Your task to perform on an android device: What's the weather today? Image 0: 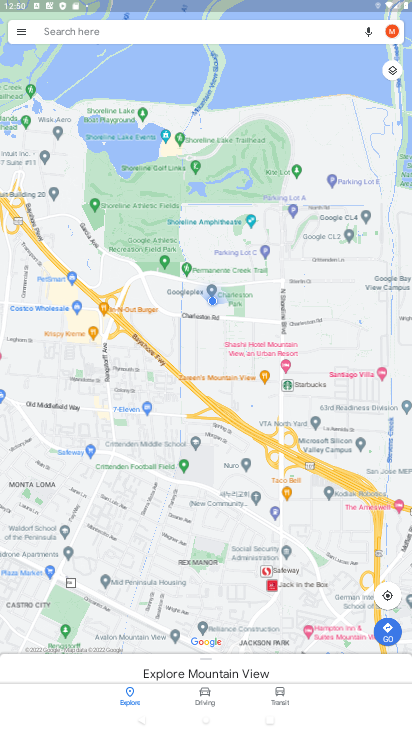
Step 0: press home button
Your task to perform on an android device: What's the weather today? Image 1: 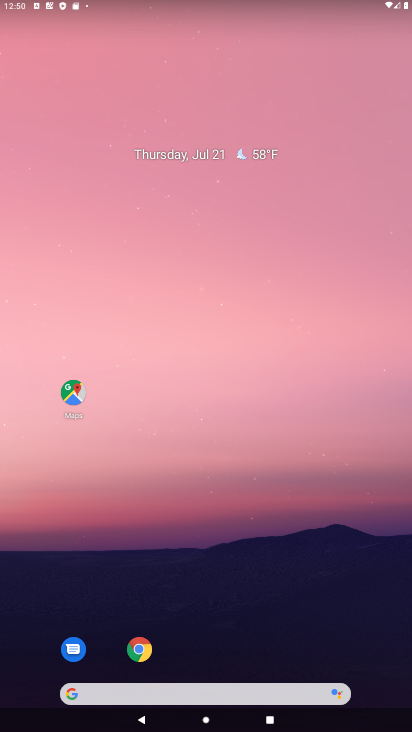
Step 1: click (257, 155)
Your task to perform on an android device: What's the weather today? Image 2: 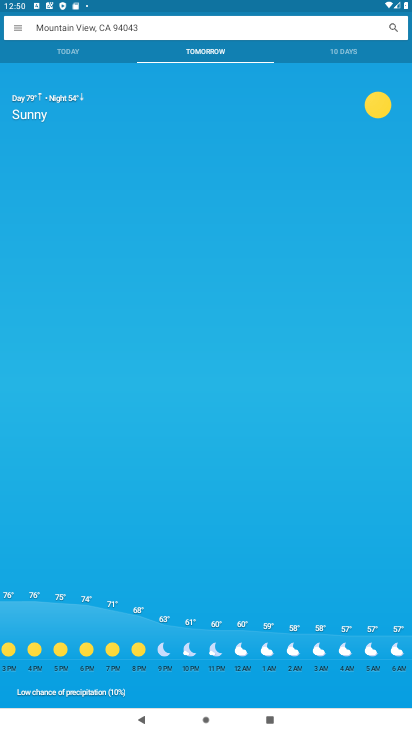
Step 2: click (69, 54)
Your task to perform on an android device: What's the weather today? Image 3: 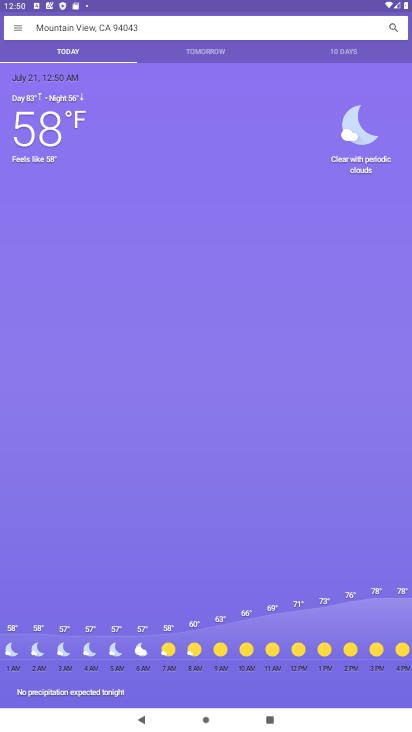
Step 3: task complete